Your task to perform on an android device: open app "TextNow: Call + Text Unlimited" (install if not already installed) Image 0: 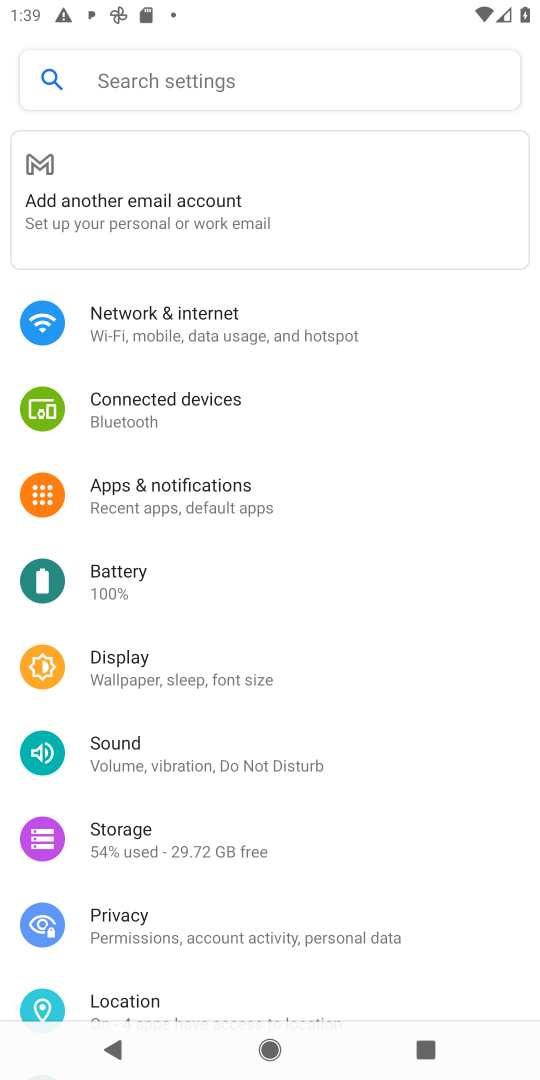
Step 0: press home button
Your task to perform on an android device: open app "TextNow: Call + Text Unlimited" (install if not already installed) Image 1: 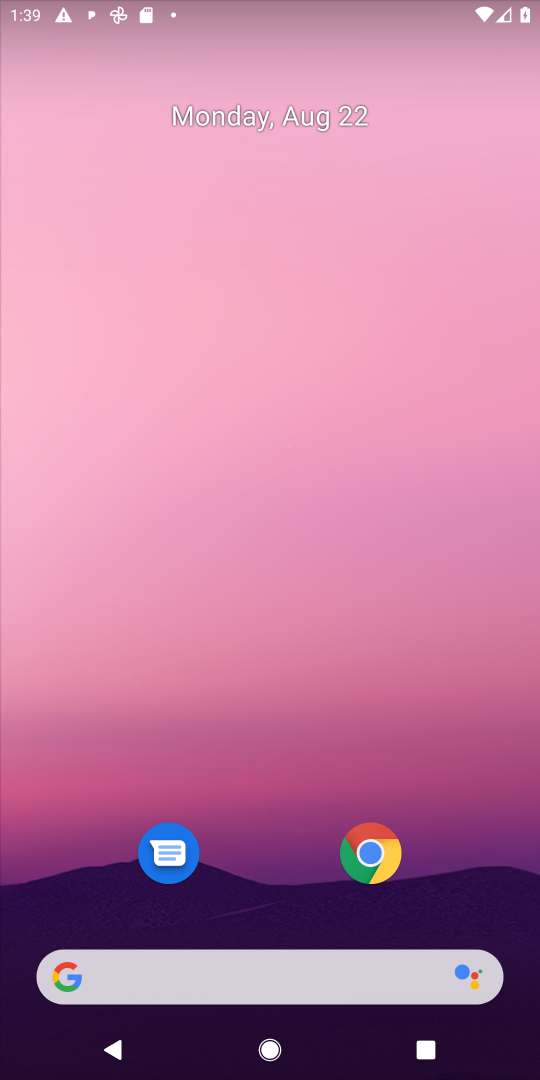
Step 1: drag from (192, 959) to (288, 276)
Your task to perform on an android device: open app "TextNow: Call + Text Unlimited" (install if not already installed) Image 2: 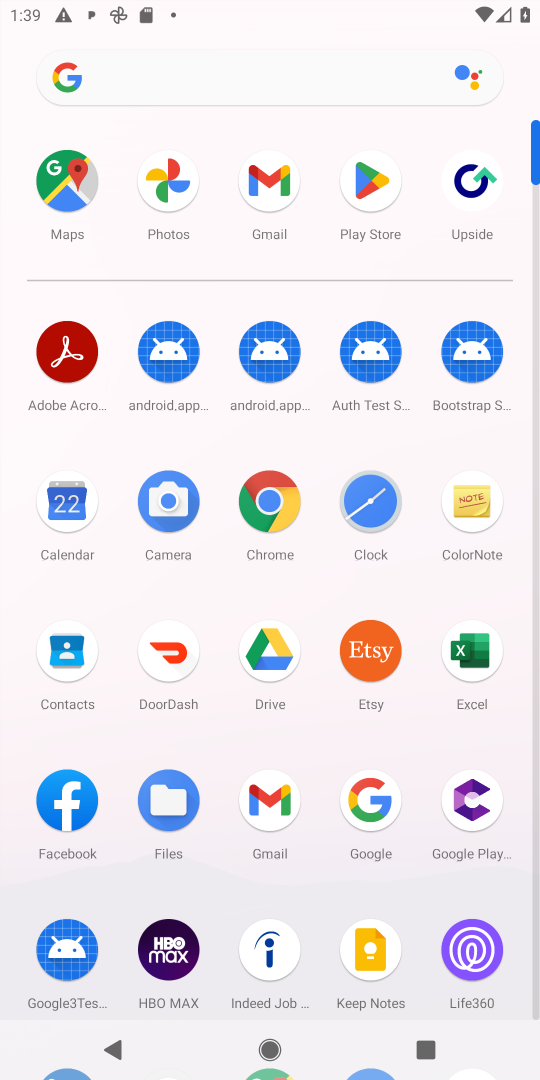
Step 2: click (363, 174)
Your task to perform on an android device: open app "TextNow: Call + Text Unlimited" (install if not already installed) Image 3: 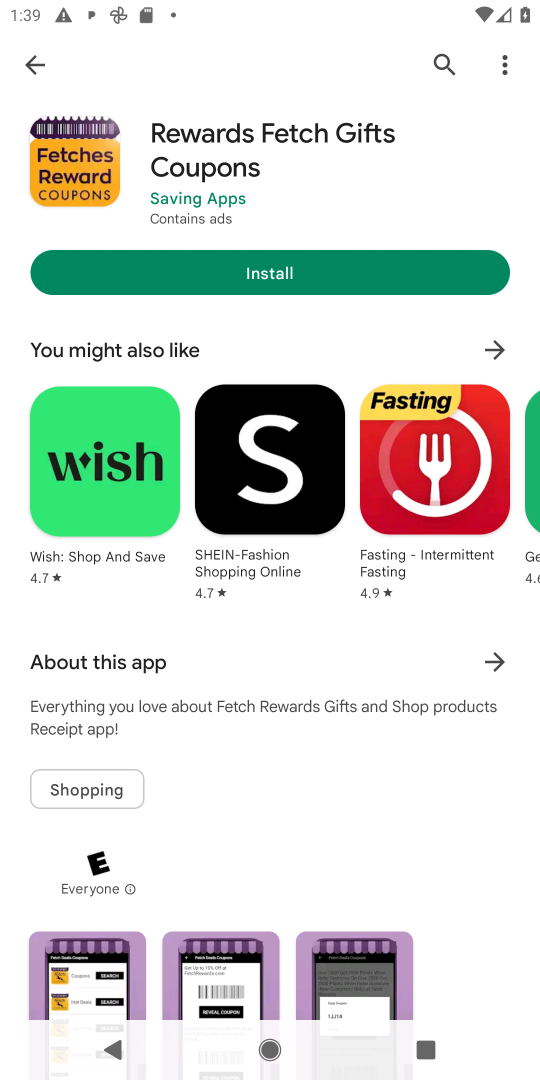
Step 3: click (33, 44)
Your task to perform on an android device: open app "TextNow: Call + Text Unlimited" (install if not already installed) Image 4: 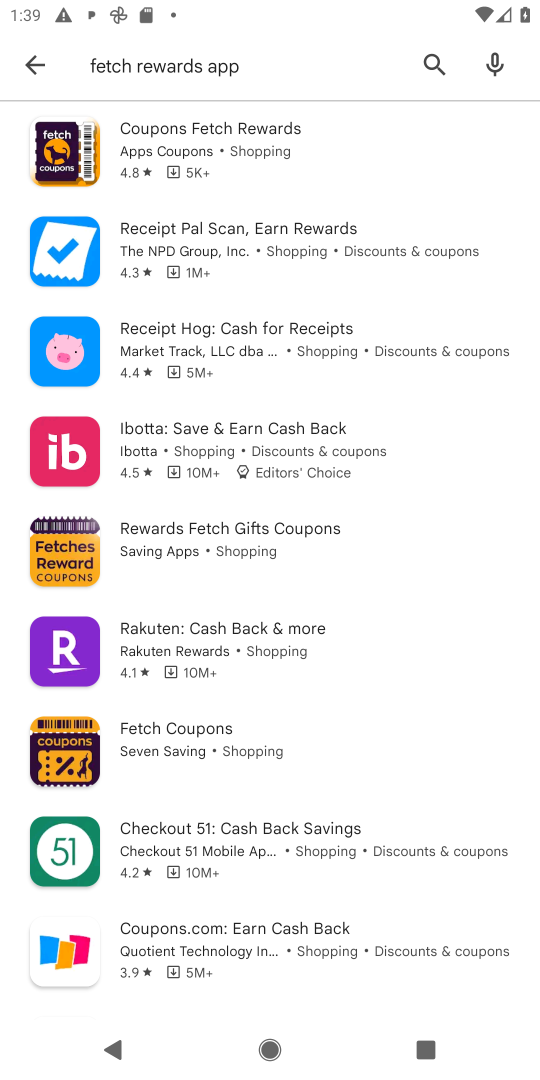
Step 4: click (31, 57)
Your task to perform on an android device: open app "TextNow: Call + Text Unlimited" (install if not already installed) Image 5: 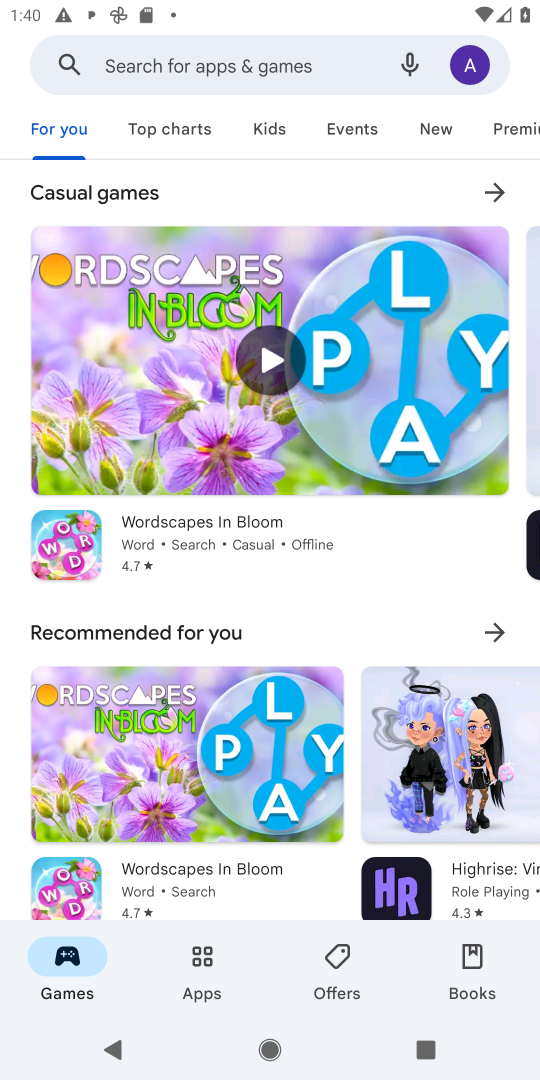
Step 5: click (151, 52)
Your task to perform on an android device: open app "TextNow: Call + Text Unlimited" (install if not already installed) Image 6: 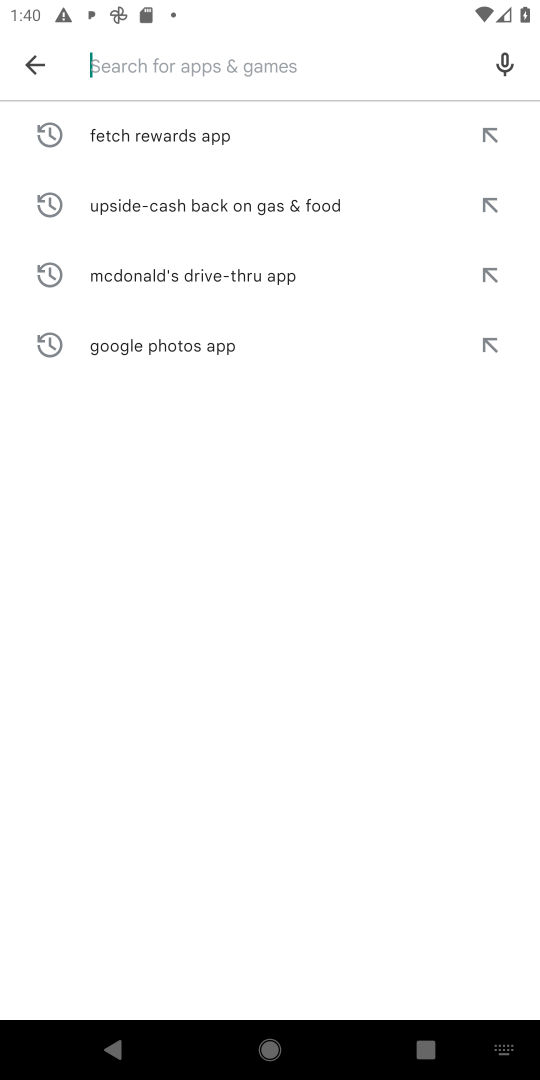
Step 6: type "TextNow: Call + Text Unlimited "
Your task to perform on an android device: open app "TextNow: Call + Text Unlimited" (install if not already installed) Image 7: 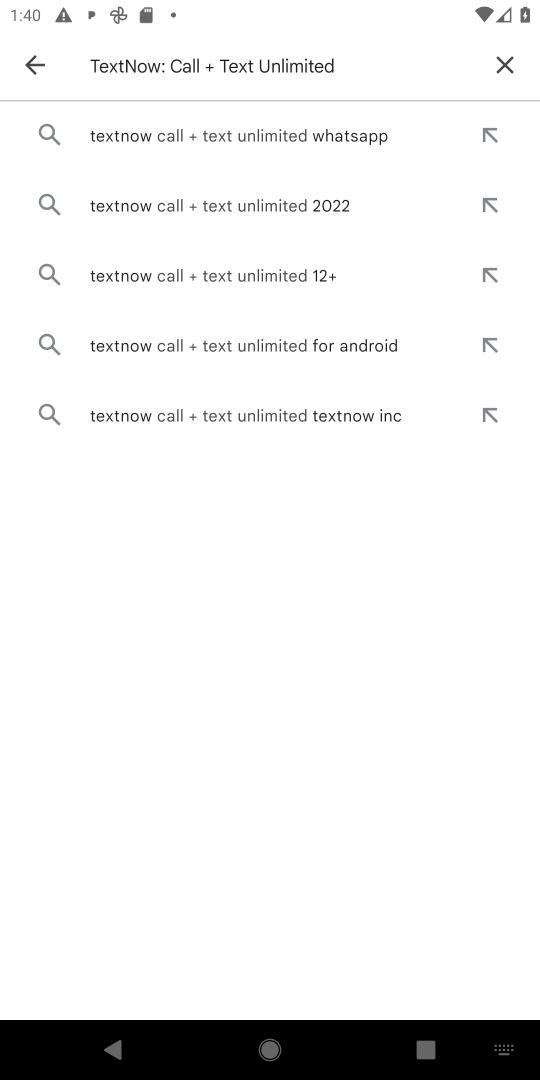
Step 7: click (271, 136)
Your task to perform on an android device: open app "TextNow: Call + Text Unlimited" (install if not already installed) Image 8: 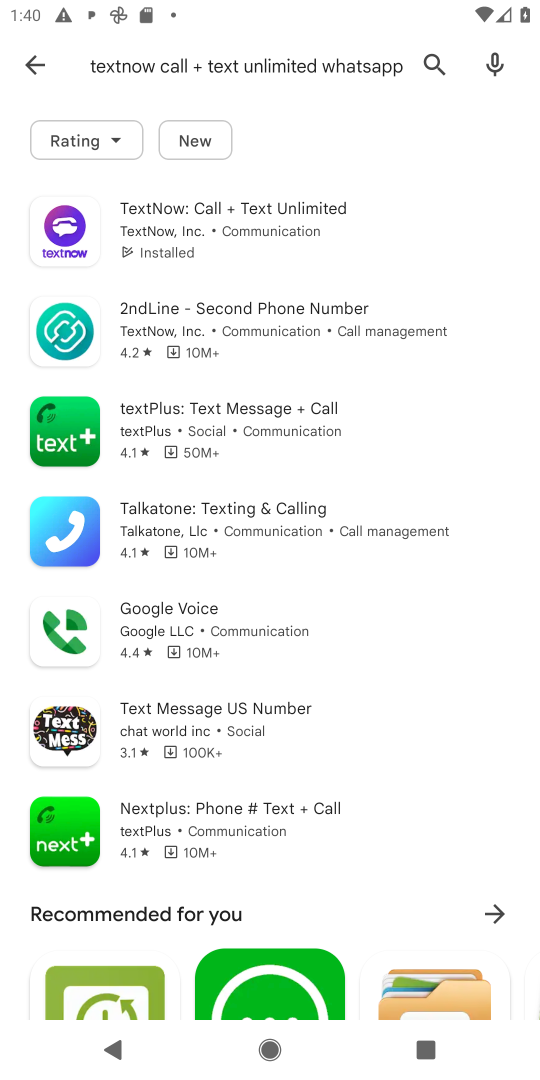
Step 8: click (217, 207)
Your task to perform on an android device: open app "TextNow: Call + Text Unlimited" (install if not already installed) Image 9: 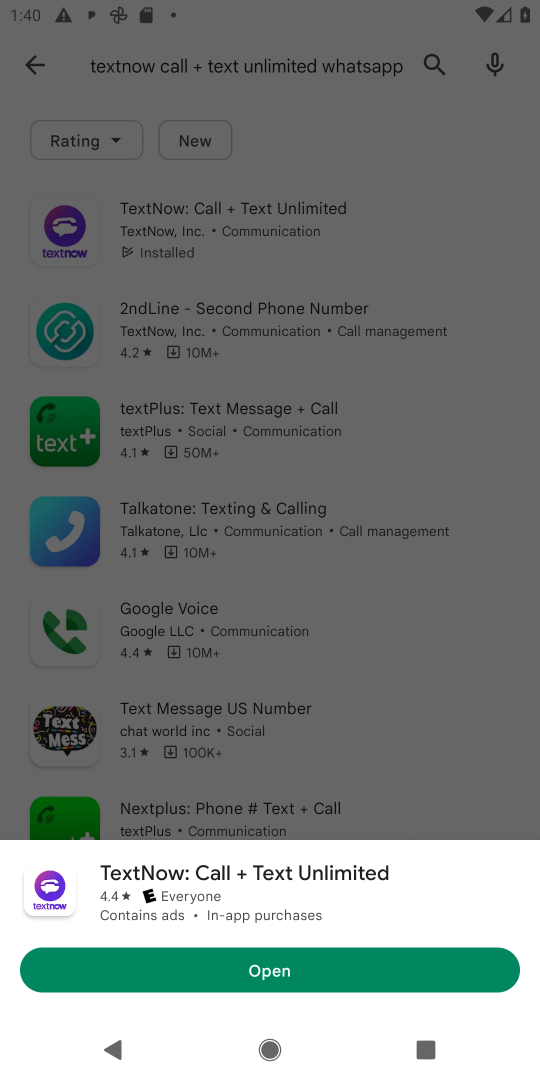
Step 9: click (304, 973)
Your task to perform on an android device: open app "TextNow: Call + Text Unlimited" (install if not already installed) Image 10: 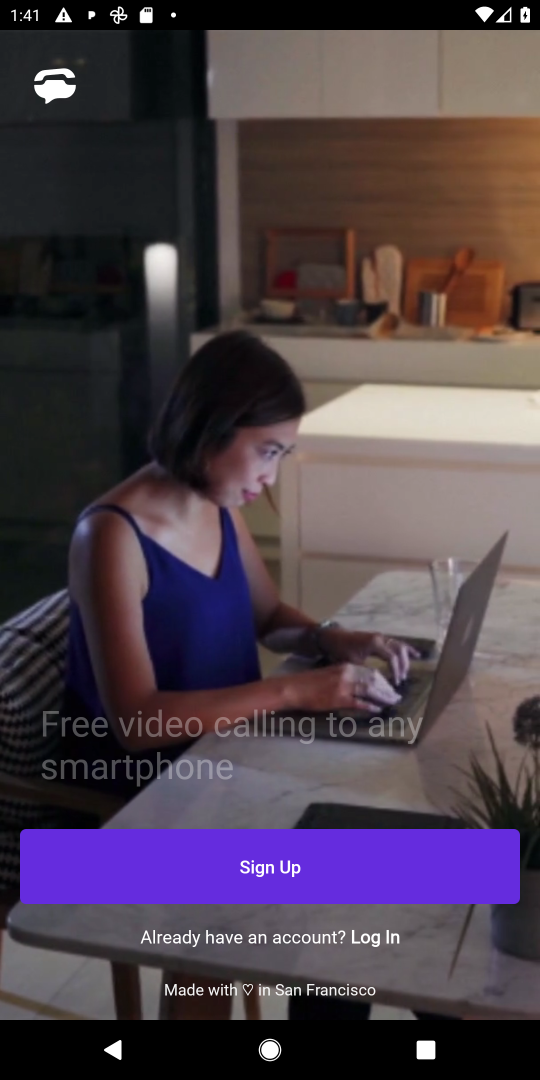
Step 10: task complete